Your task to perform on an android device: Go to settings Image 0: 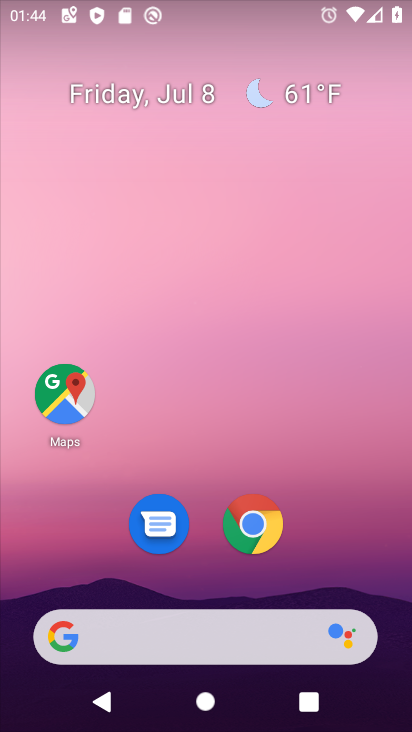
Step 0: drag from (333, 515) to (375, 13)
Your task to perform on an android device: Go to settings Image 1: 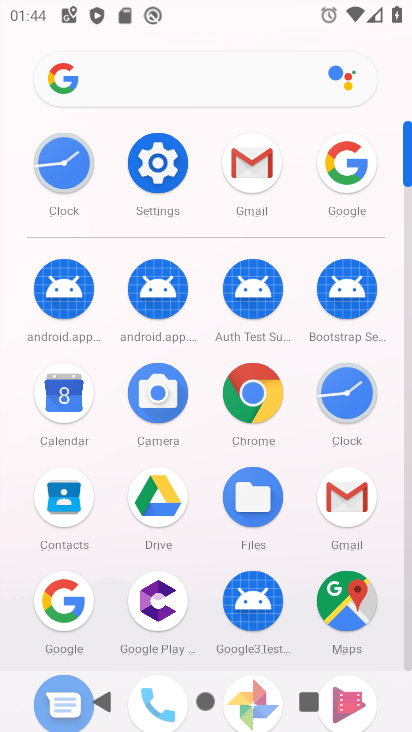
Step 1: click (165, 160)
Your task to perform on an android device: Go to settings Image 2: 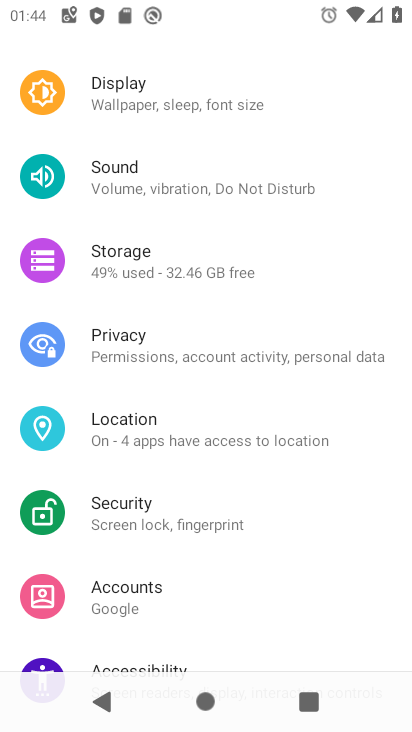
Step 2: task complete